Your task to perform on an android device: When is my next appointment? Image 0: 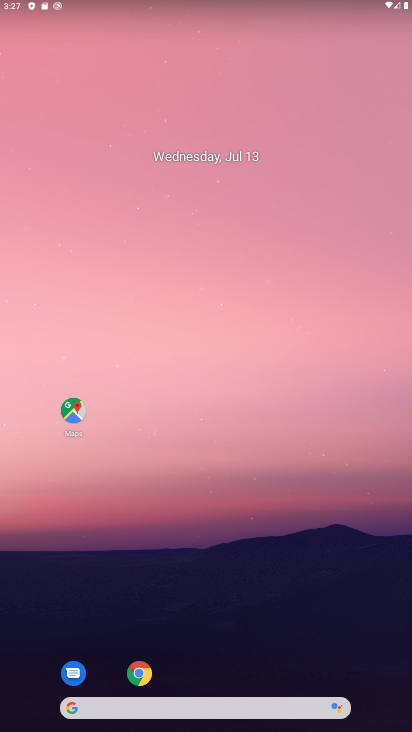
Step 0: drag from (326, 459) to (331, 149)
Your task to perform on an android device: When is my next appointment? Image 1: 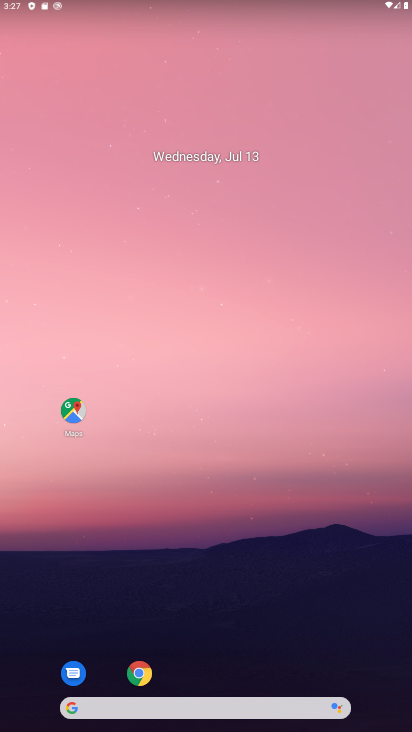
Step 1: drag from (303, 653) to (330, 15)
Your task to perform on an android device: When is my next appointment? Image 2: 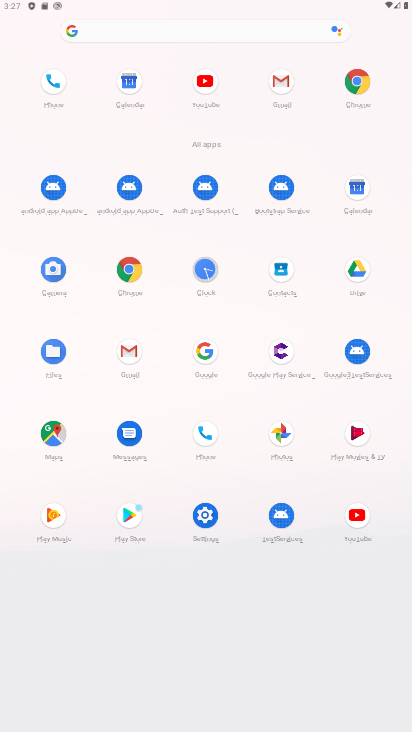
Step 2: click (359, 181)
Your task to perform on an android device: When is my next appointment? Image 3: 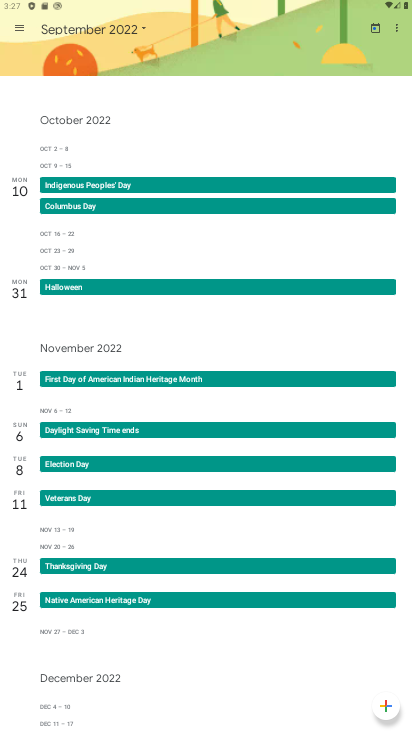
Step 3: click (119, 24)
Your task to perform on an android device: When is my next appointment? Image 4: 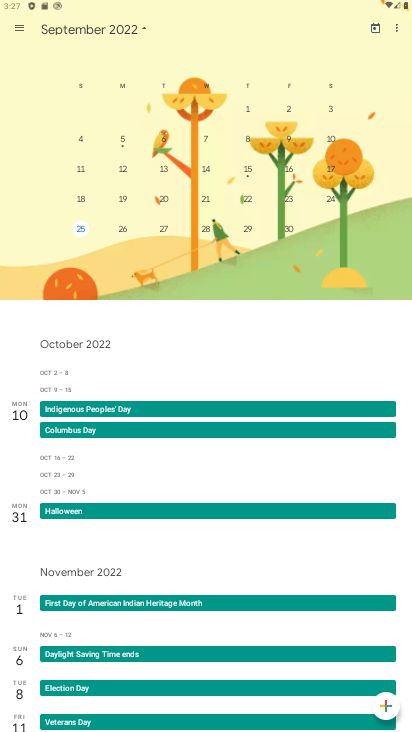
Step 4: drag from (49, 157) to (410, 134)
Your task to perform on an android device: When is my next appointment? Image 5: 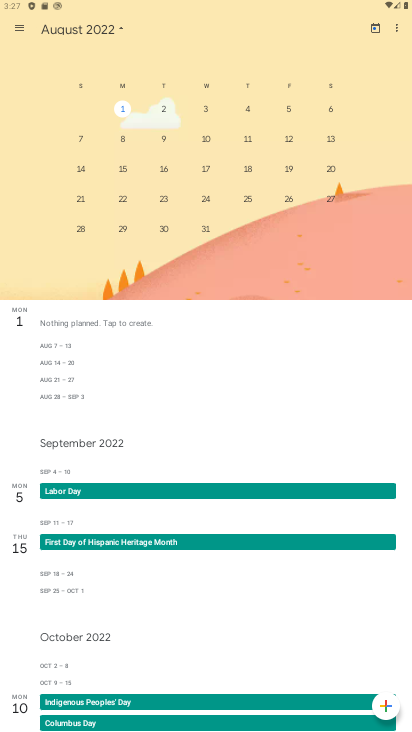
Step 5: drag from (28, 148) to (374, 154)
Your task to perform on an android device: When is my next appointment? Image 6: 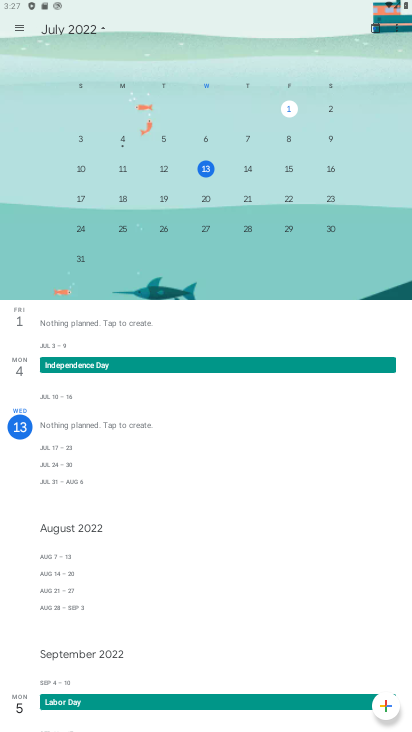
Step 6: click (202, 170)
Your task to perform on an android device: When is my next appointment? Image 7: 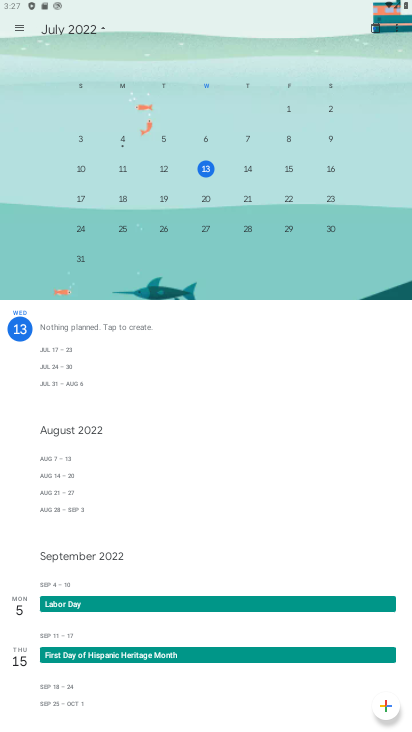
Step 7: task complete